Your task to perform on an android device: Check the news Image 0: 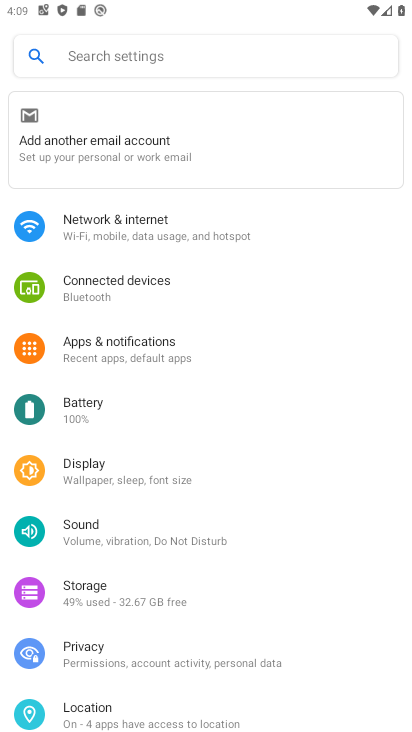
Step 0: press home button
Your task to perform on an android device: Check the news Image 1: 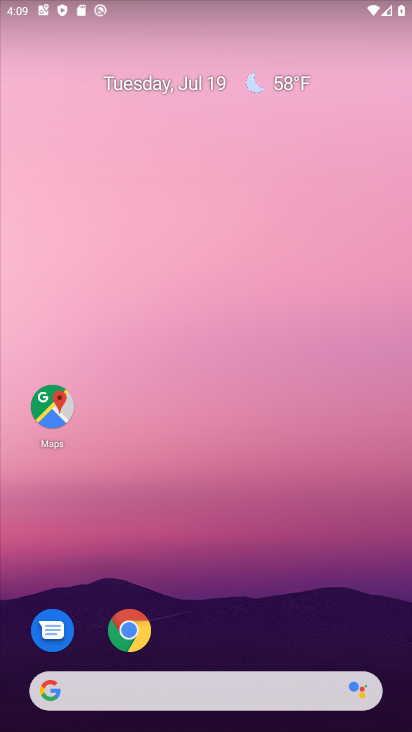
Step 1: task complete